Your task to perform on an android device: Open eBay Image 0: 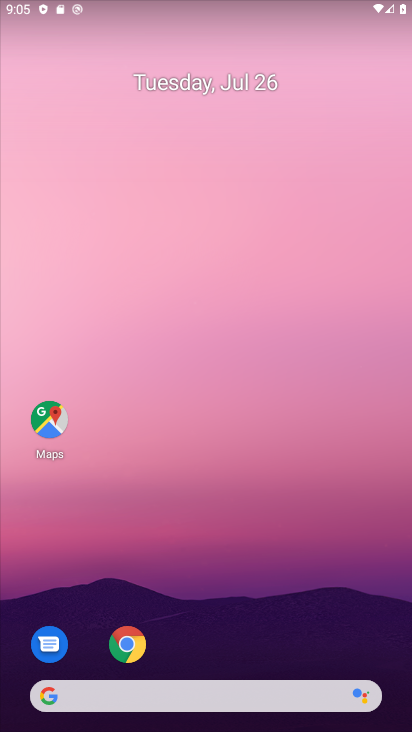
Step 0: click (140, 647)
Your task to perform on an android device: Open eBay Image 1: 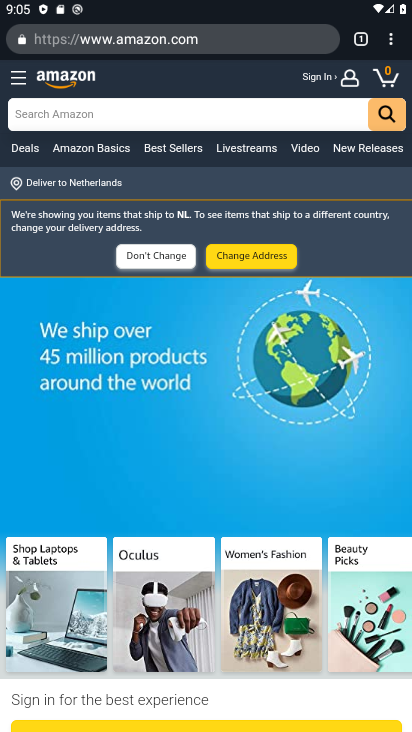
Step 1: click (182, 31)
Your task to perform on an android device: Open eBay Image 2: 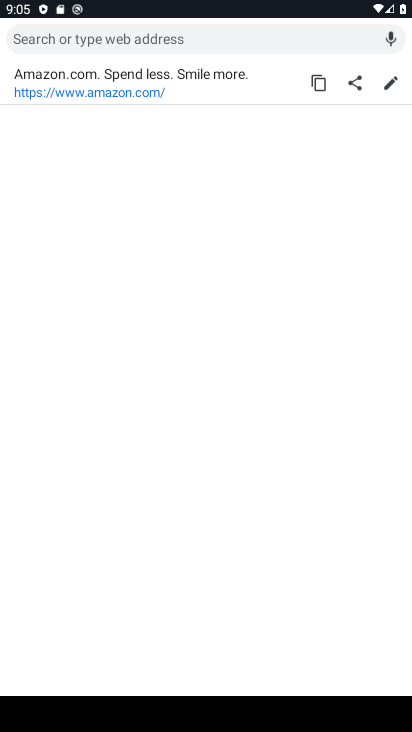
Step 2: type "eBay"
Your task to perform on an android device: Open eBay Image 3: 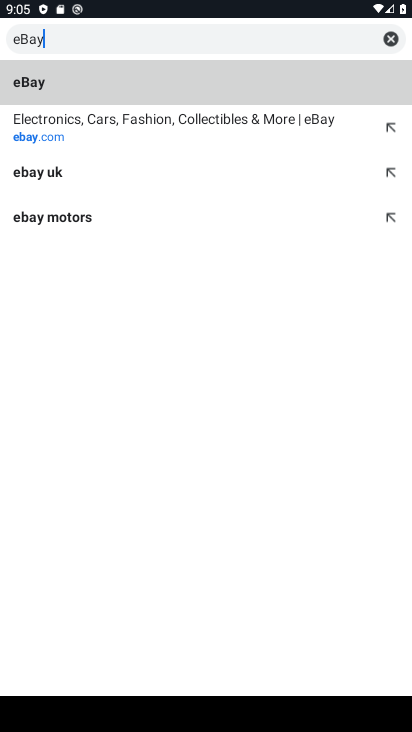
Step 3: click (121, 135)
Your task to perform on an android device: Open eBay Image 4: 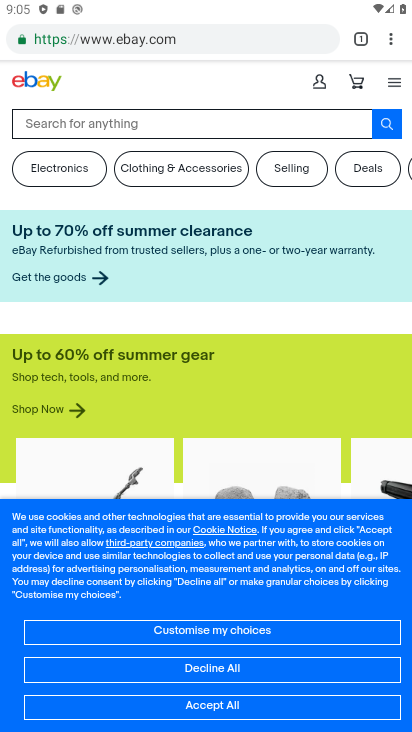
Step 4: task complete